Your task to perform on an android device: turn smart compose on in the gmail app Image 0: 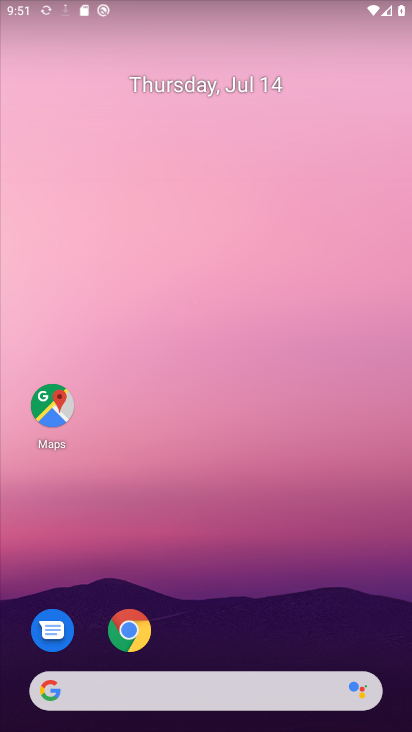
Step 0: click (262, 172)
Your task to perform on an android device: turn smart compose on in the gmail app Image 1: 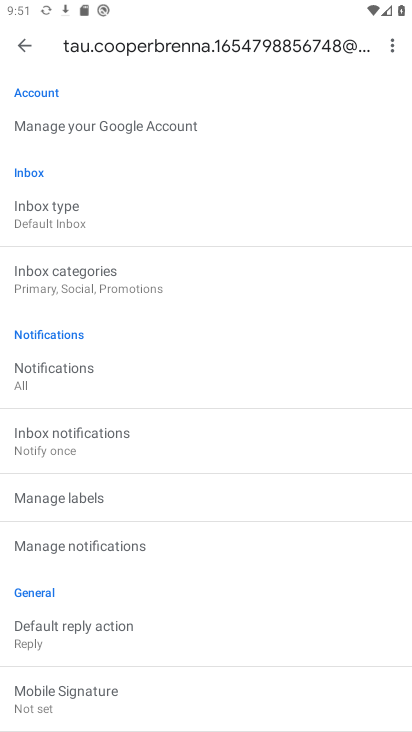
Step 1: press home button
Your task to perform on an android device: turn smart compose on in the gmail app Image 2: 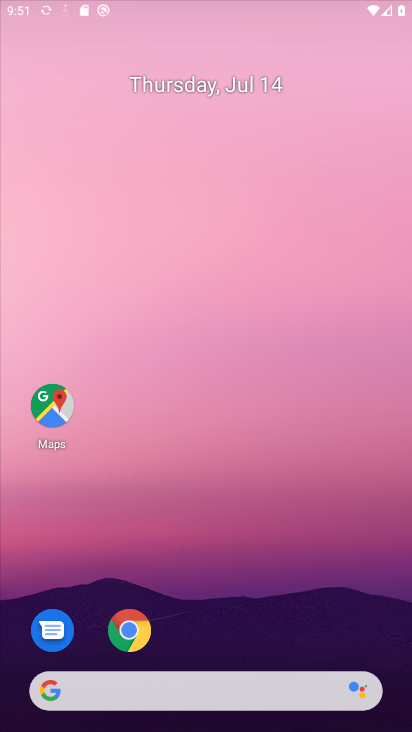
Step 2: drag from (178, 507) to (250, 337)
Your task to perform on an android device: turn smart compose on in the gmail app Image 3: 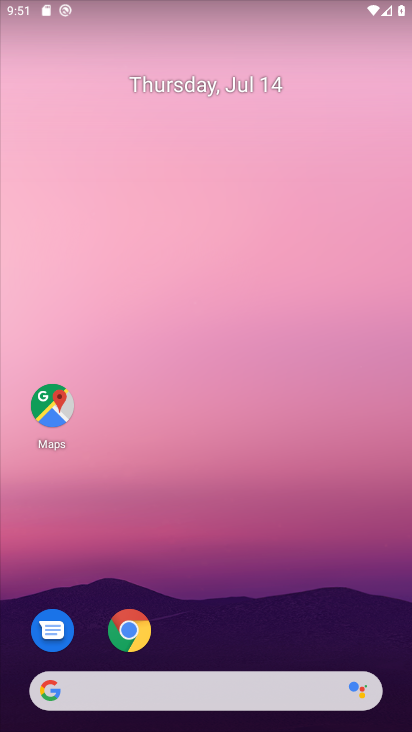
Step 3: drag from (196, 636) to (272, 163)
Your task to perform on an android device: turn smart compose on in the gmail app Image 4: 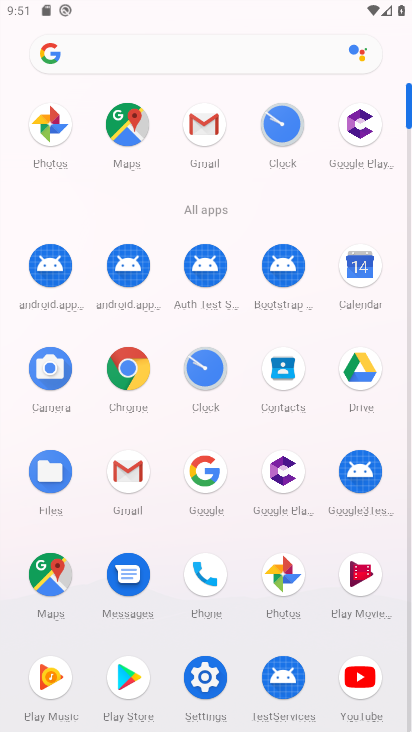
Step 4: click (127, 464)
Your task to perform on an android device: turn smart compose on in the gmail app Image 5: 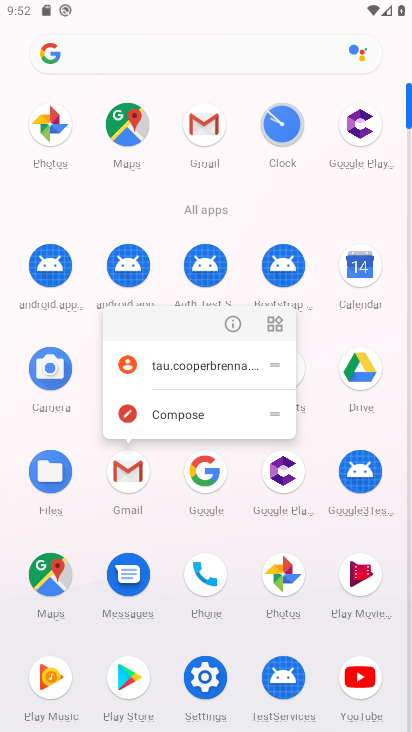
Step 5: click (232, 316)
Your task to perform on an android device: turn smart compose on in the gmail app Image 6: 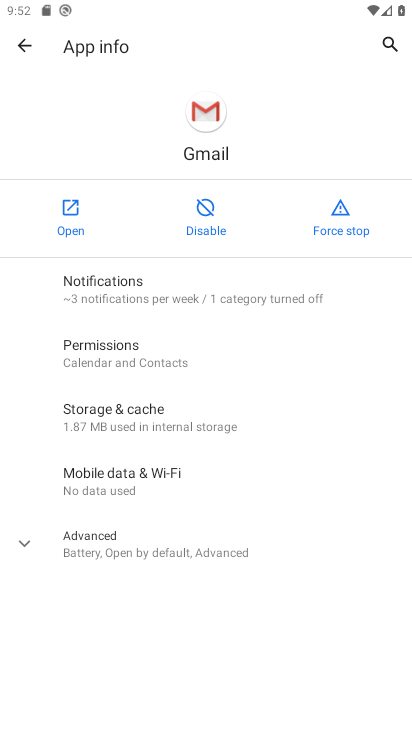
Step 6: click (60, 213)
Your task to perform on an android device: turn smart compose on in the gmail app Image 7: 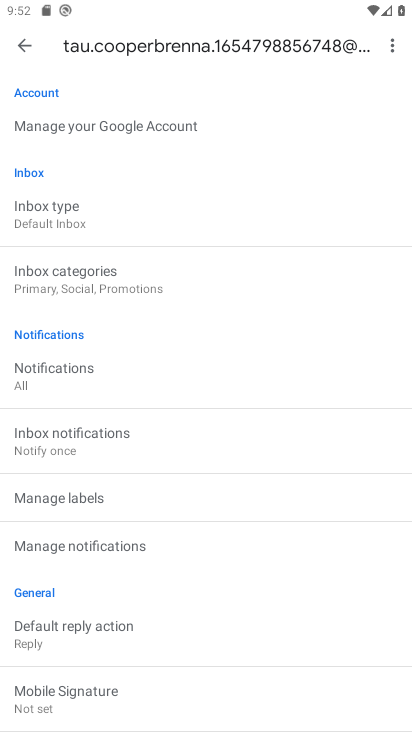
Step 7: task complete